Your task to perform on an android device: turn off location Image 0: 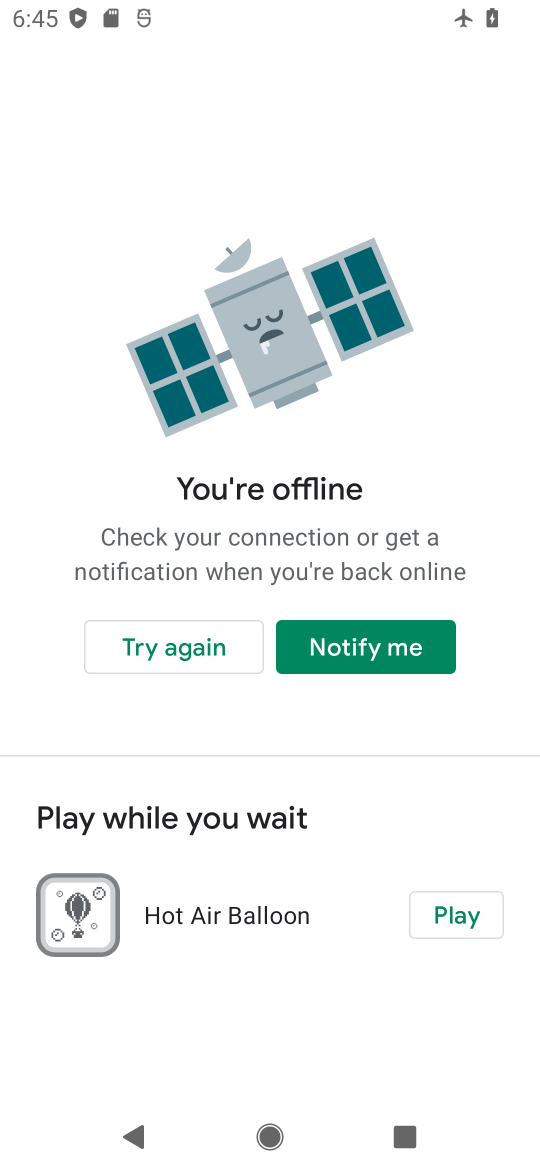
Step 0: press home button
Your task to perform on an android device: turn off location Image 1: 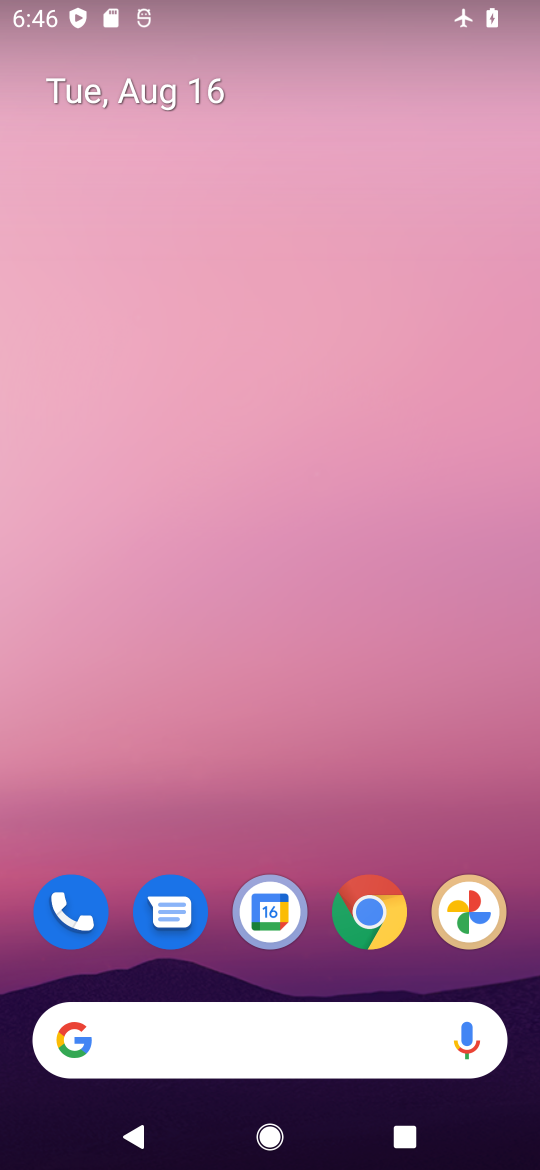
Step 1: drag from (437, 959) to (403, 141)
Your task to perform on an android device: turn off location Image 2: 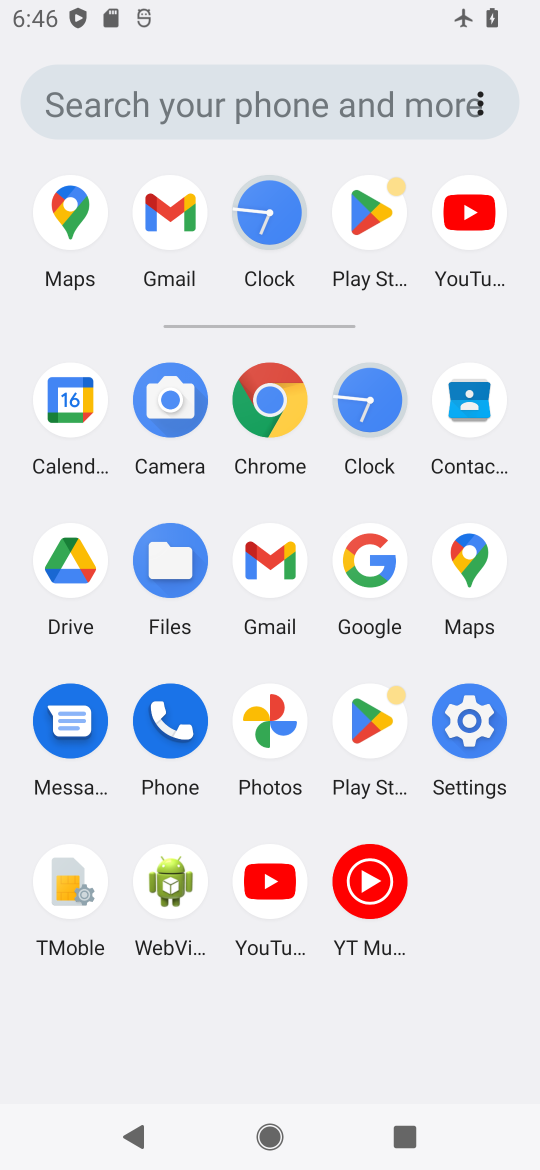
Step 2: click (475, 719)
Your task to perform on an android device: turn off location Image 3: 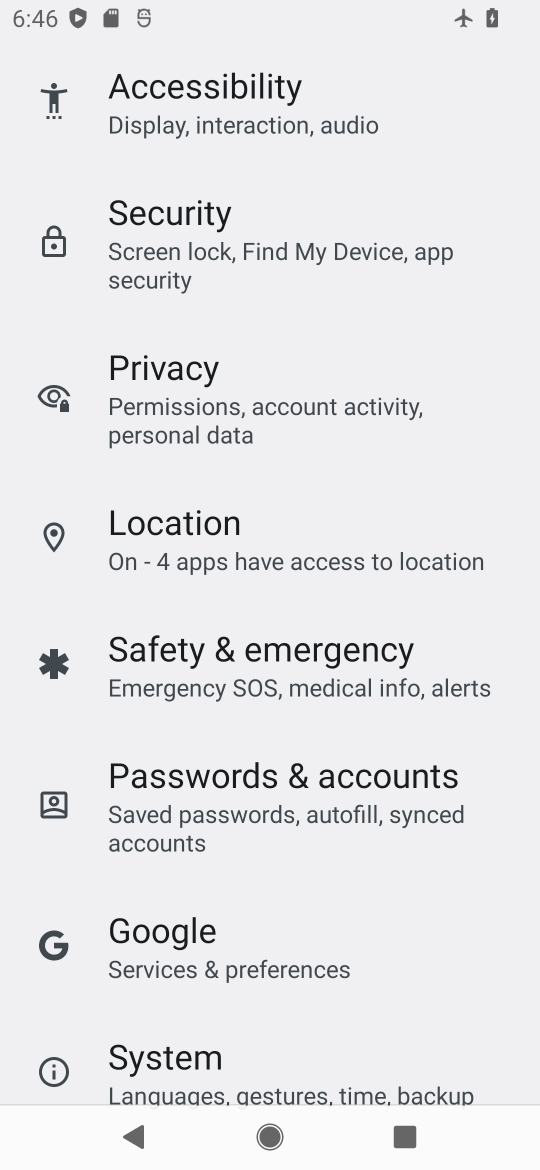
Step 3: click (181, 525)
Your task to perform on an android device: turn off location Image 4: 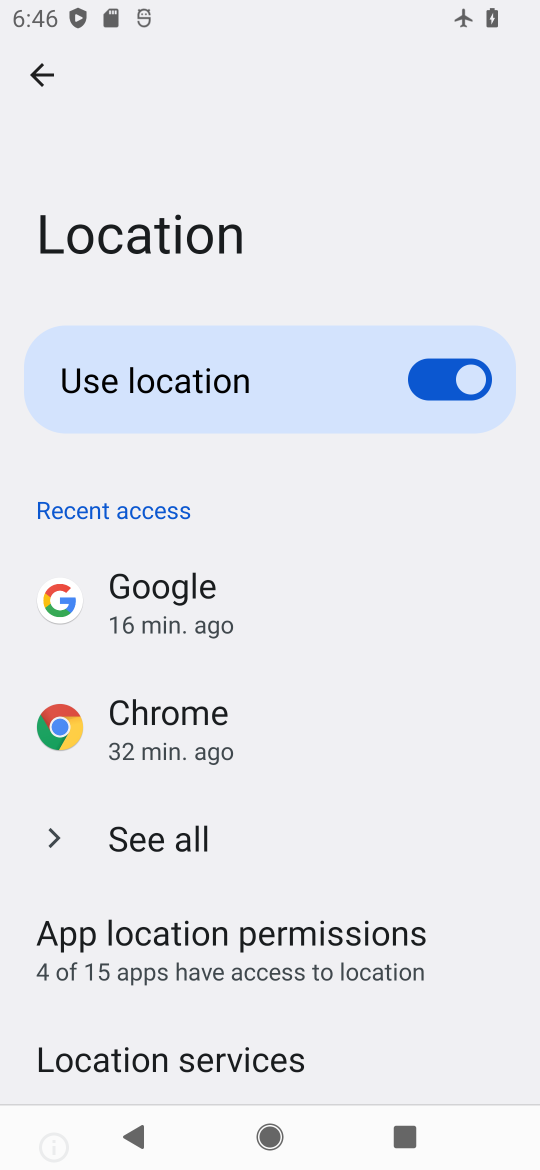
Step 4: click (418, 394)
Your task to perform on an android device: turn off location Image 5: 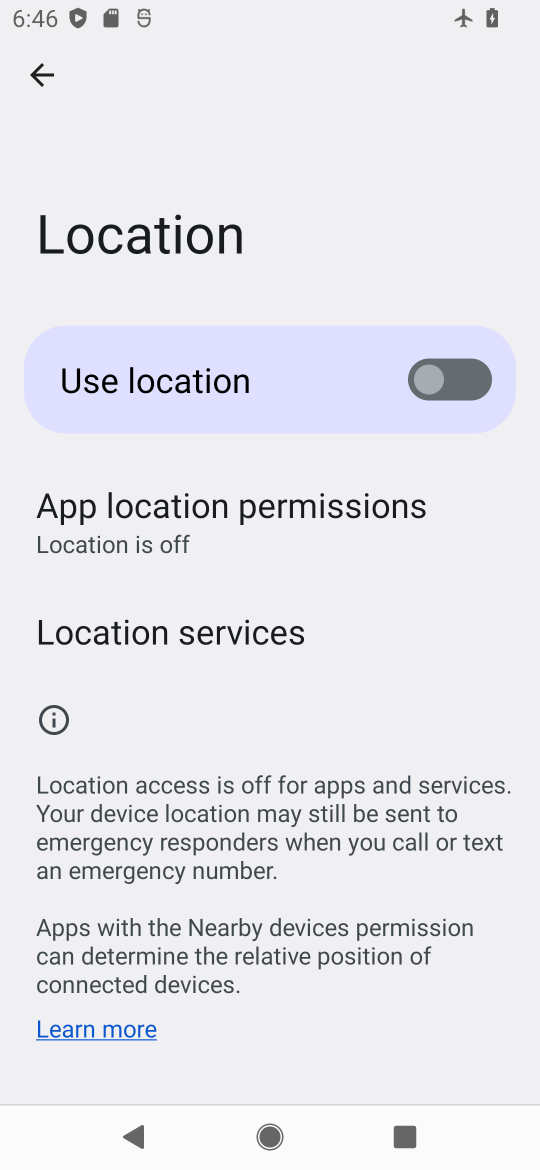
Step 5: task complete